Your task to perform on an android device: Open network settings Image 0: 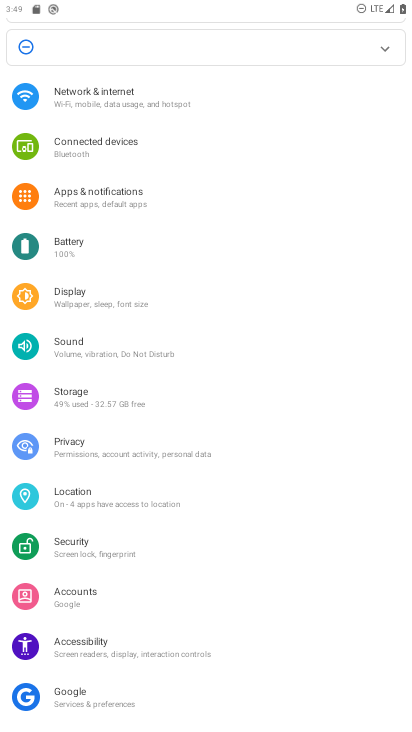
Step 0: press home button
Your task to perform on an android device: Open network settings Image 1: 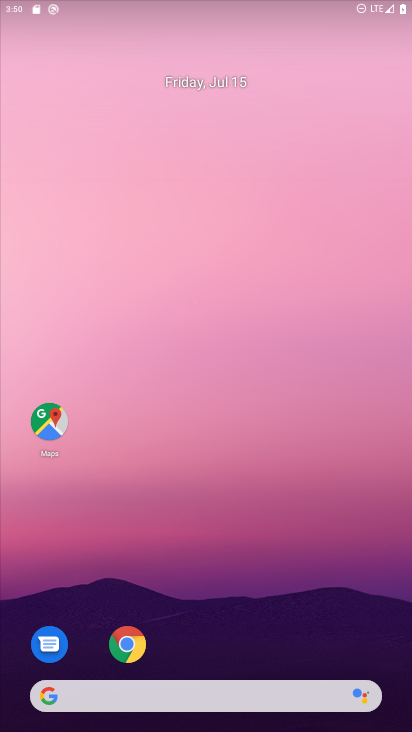
Step 1: drag from (80, 462) to (221, 164)
Your task to perform on an android device: Open network settings Image 2: 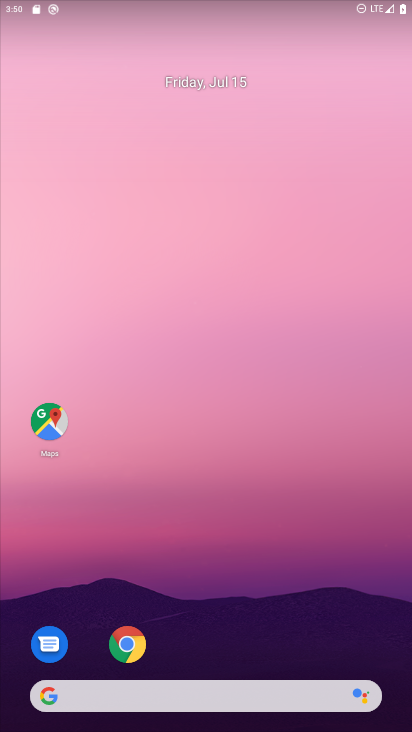
Step 2: drag from (70, 454) to (300, 14)
Your task to perform on an android device: Open network settings Image 3: 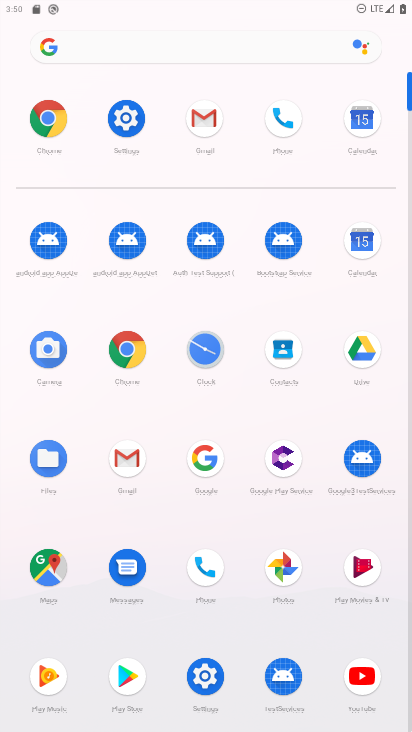
Step 3: click (132, 131)
Your task to perform on an android device: Open network settings Image 4: 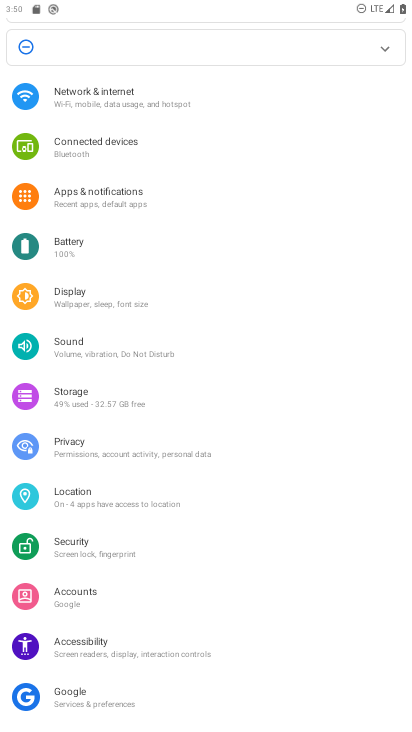
Step 4: click (119, 103)
Your task to perform on an android device: Open network settings Image 5: 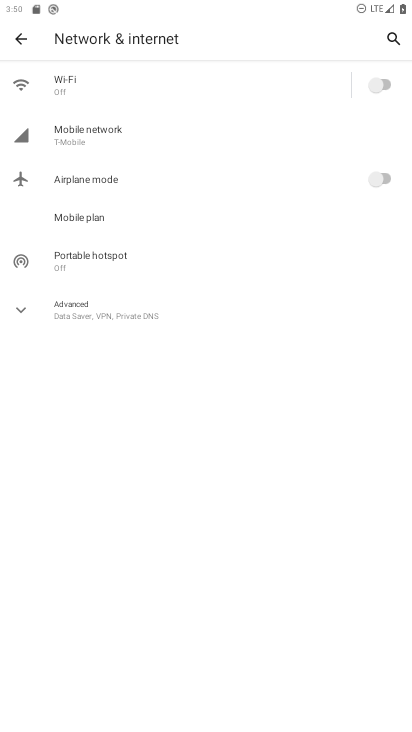
Step 5: task complete